Your task to perform on an android device: refresh tabs in the chrome app Image 0: 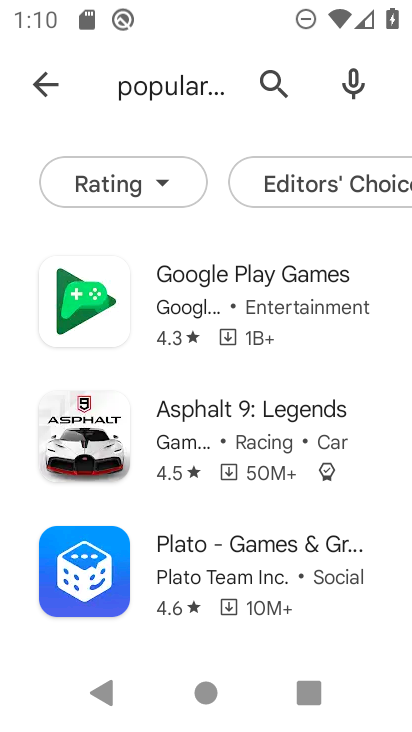
Step 0: press home button
Your task to perform on an android device: refresh tabs in the chrome app Image 1: 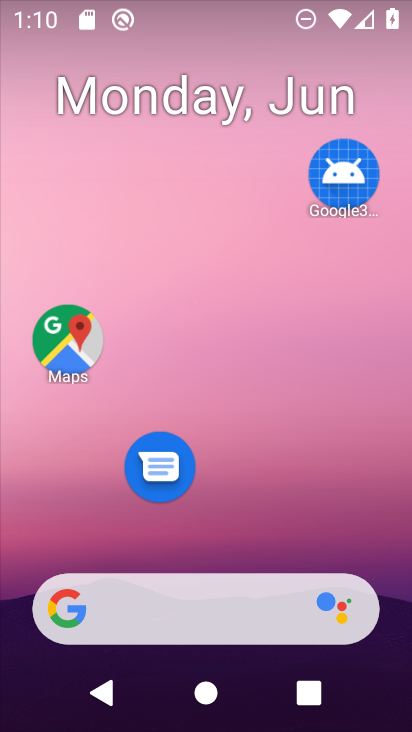
Step 1: drag from (335, 567) to (410, 292)
Your task to perform on an android device: refresh tabs in the chrome app Image 2: 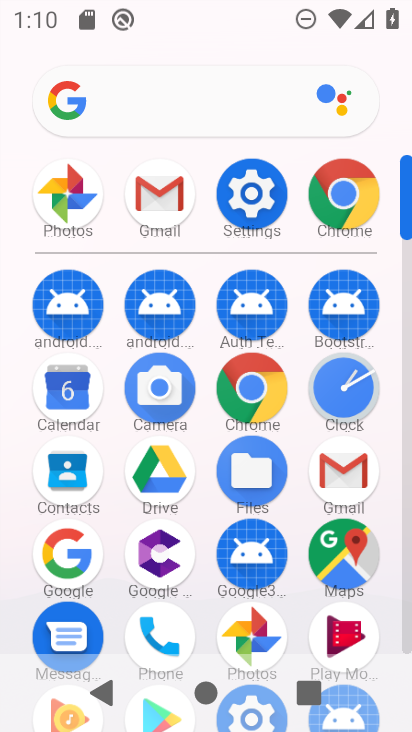
Step 2: click (341, 191)
Your task to perform on an android device: refresh tabs in the chrome app Image 3: 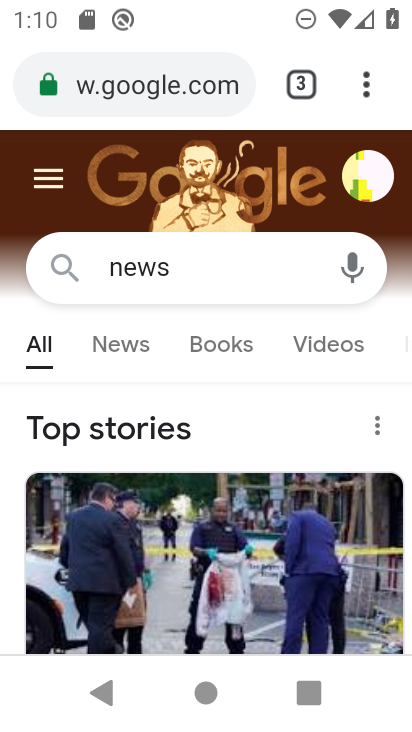
Step 3: click (364, 87)
Your task to perform on an android device: refresh tabs in the chrome app Image 4: 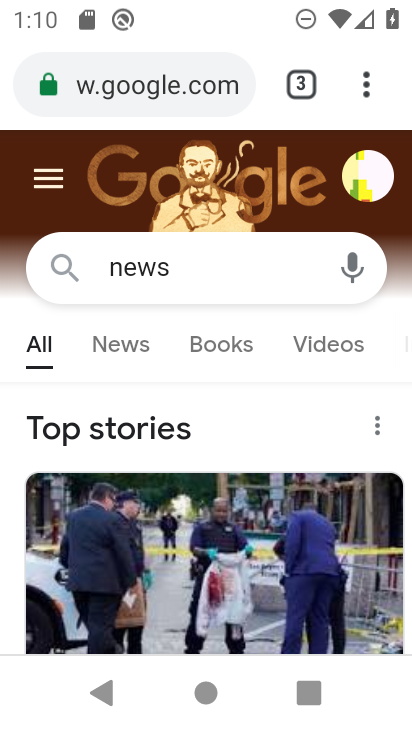
Step 4: task complete